Your task to perform on an android device: find photos in the google photos app Image 0: 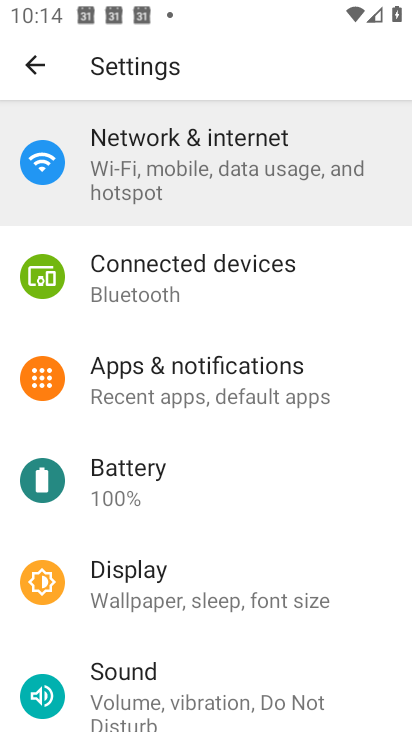
Step 0: press home button
Your task to perform on an android device: find photos in the google photos app Image 1: 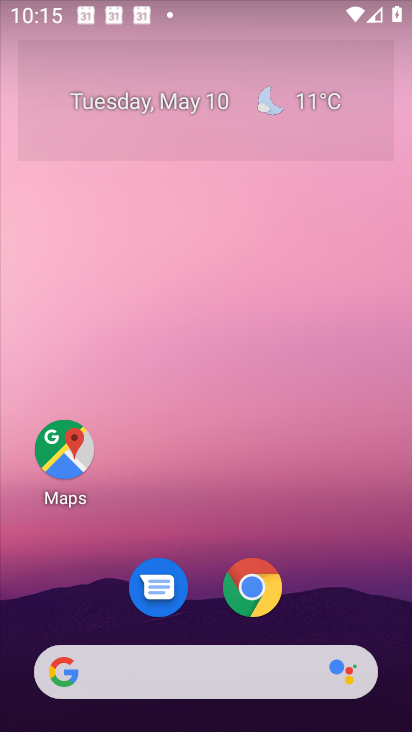
Step 1: drag from (361, 617) to (306, 113)
Your task to perform on an android device: find photos in the google photos app Image 2: 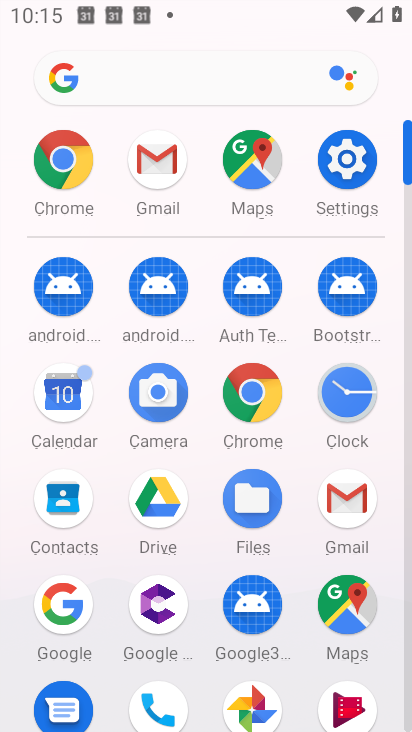
Step 2: click (256, 694)
Your task to perform on an android device: find photos in the google photos app Image 3: 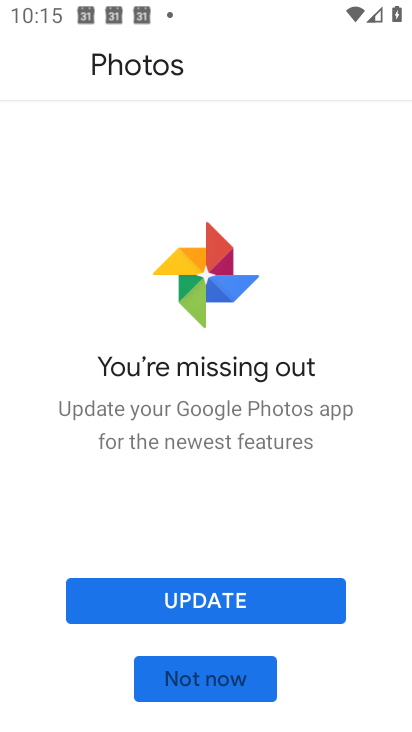
Step 3: press home button
Your task to perform on an android device: find photos in the google photos app Image 4: 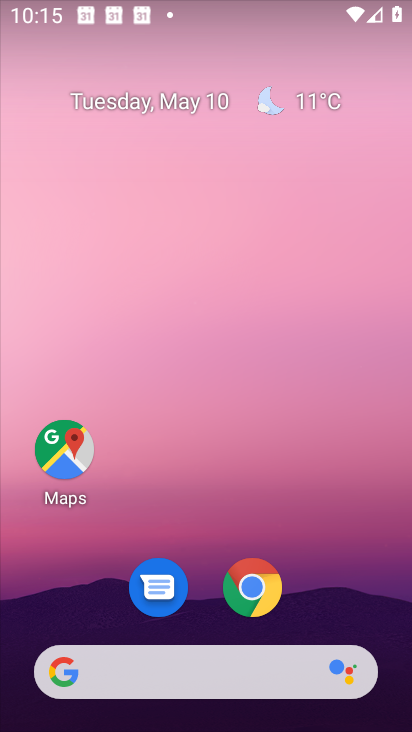
Step 4: drag from (339, 520) to (312, 145)
Your task to perform on an android device: find photos in the google photos app Image 5: 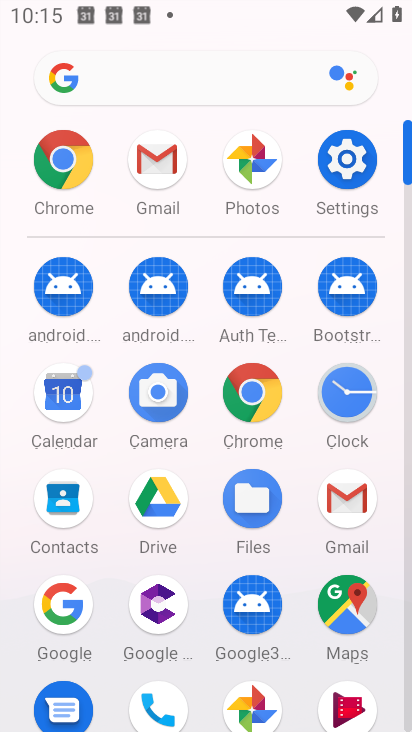
Step 5: drag from (232, 659) to (204, 312)
Your task to perform on an android device: find photos in the google photos app Image 6: 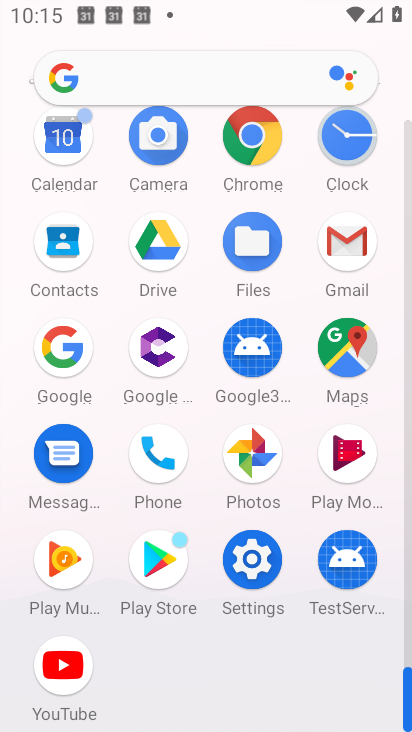
Step 6: click (263, 453)
Your task to perform on an android device: find photos in the google photos app Image 7: 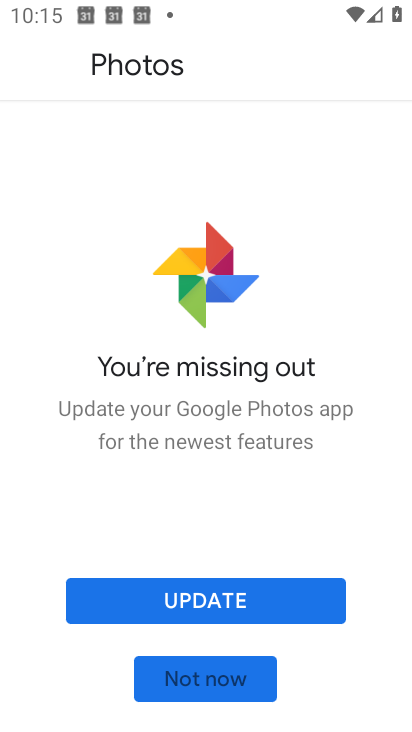
Step 7: click (225, 612)
Your task to perform on an android device: find photos in the google photos app Image 8: 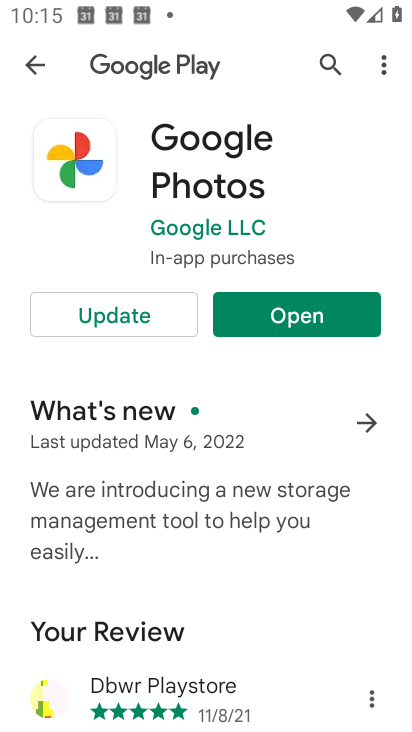
Step 8: click (126, 305)
Your task to perform on an android device: find photos in the google photos app Image 9: 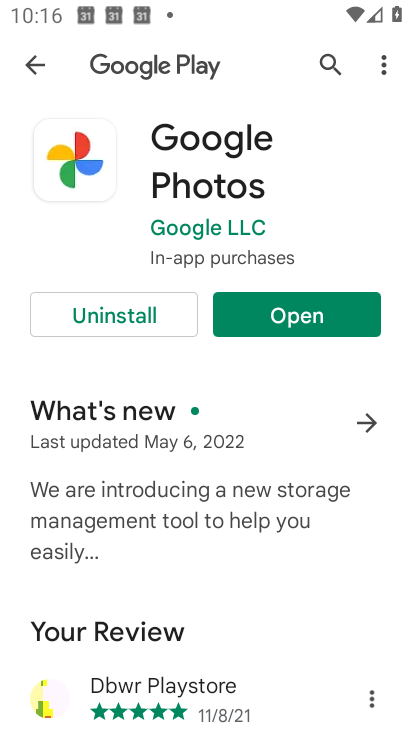
Step 9: click (302, 314)
Your task to perform on an android device: find photos in the google photos app Image 10: 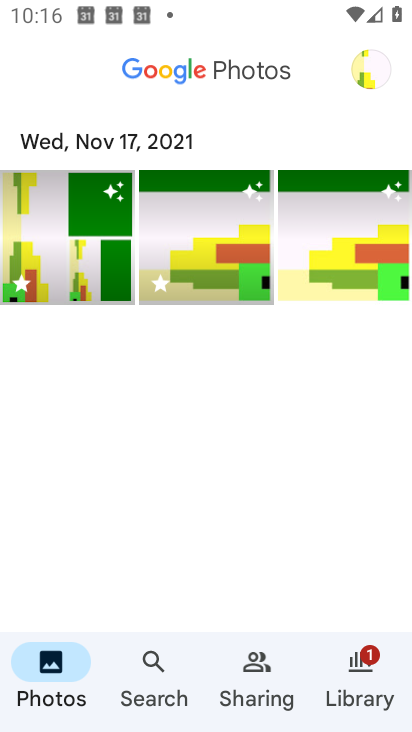
Step 10: task complete